Your task to perform on an android device: Search for Italian restaurants on Maps Image 0: 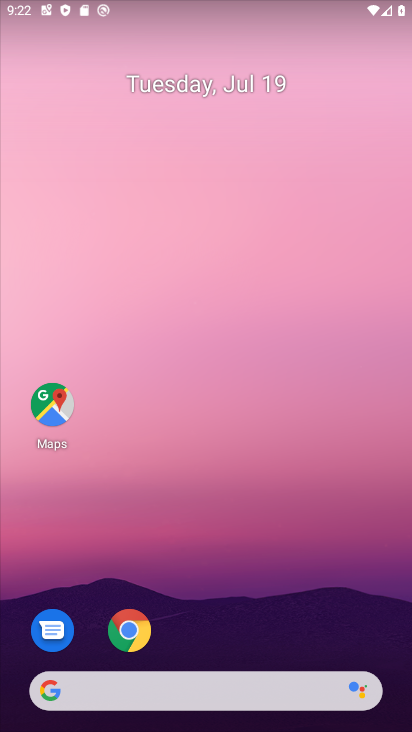
Step 0: drag from (172, 678) to (183, 134)
Your task to perform on an android device: Search for Italian restaurants on Maps Image 1: 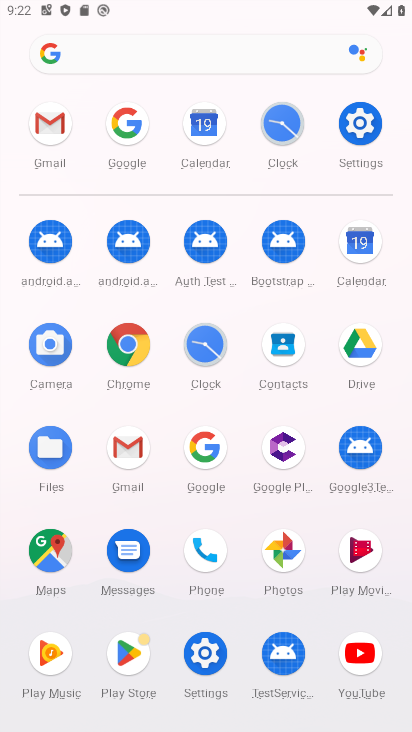
Step 1: click (46, 555)
Your task to perform on an android device: Search for Italian restaurants on Maps Image 2: 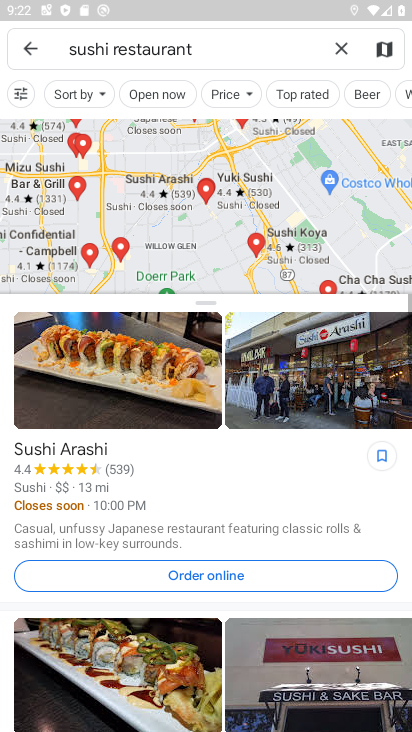
Step 2: click (337, 48)
Your task to perform on an android device: Search for Italian restaurants on Maps Image 3: 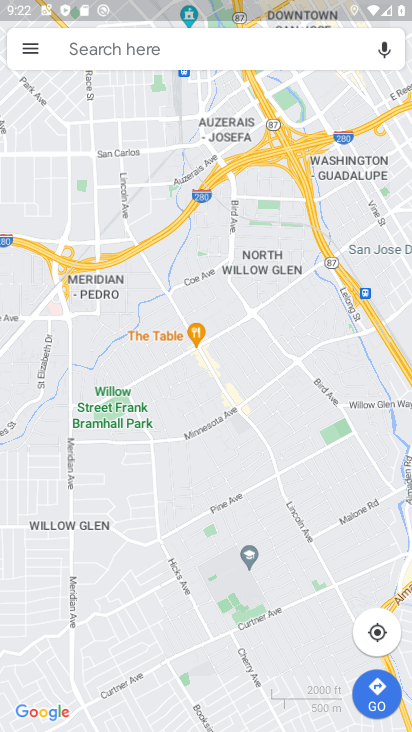
Step 3: click (142, 50)
Your task to perform on an android device: Search for Italian restaurants on Maps Image 4: 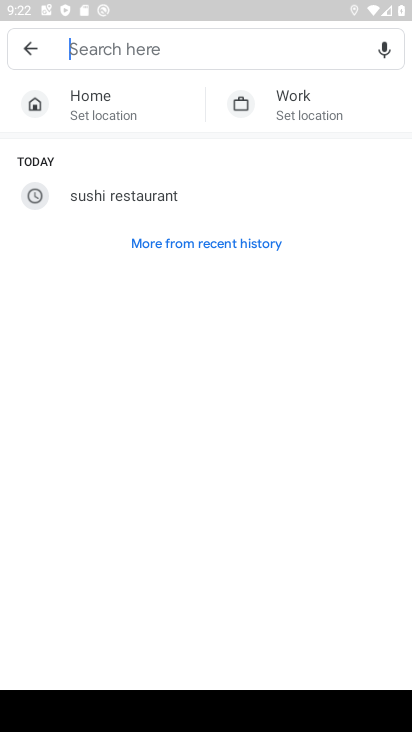
Step 4: type "italian restaurents"
Your task to perform on an android device: Search for Italian restaurants on Maps Image 5: 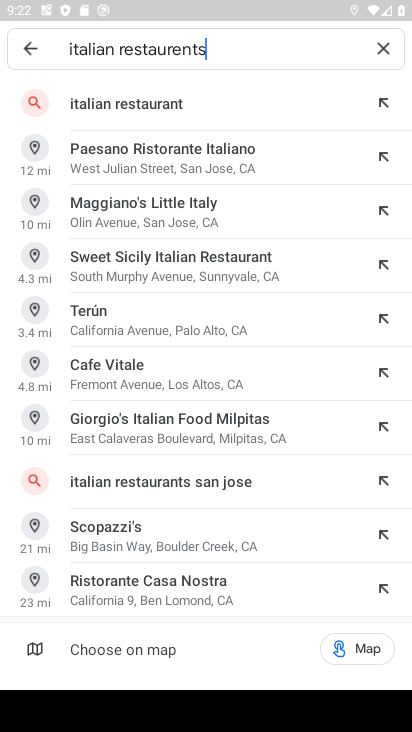
Step 5: click (167, 114)
Your task to perform on an android device: Search for Italian restaurants on Maps Image 6: 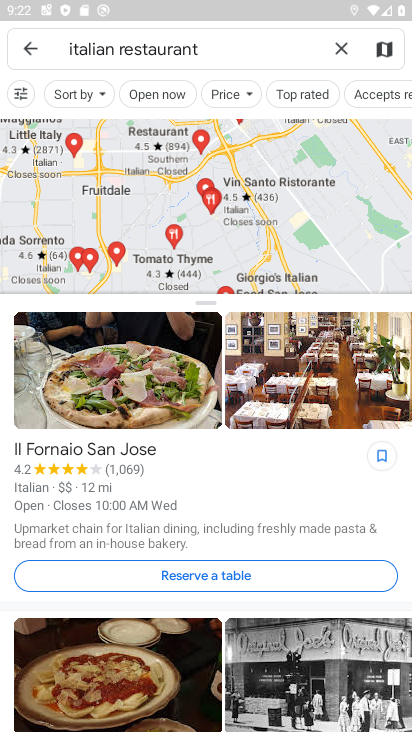
Step 6: task complete